Your task to perform on an android device: check out phone information Image 0: 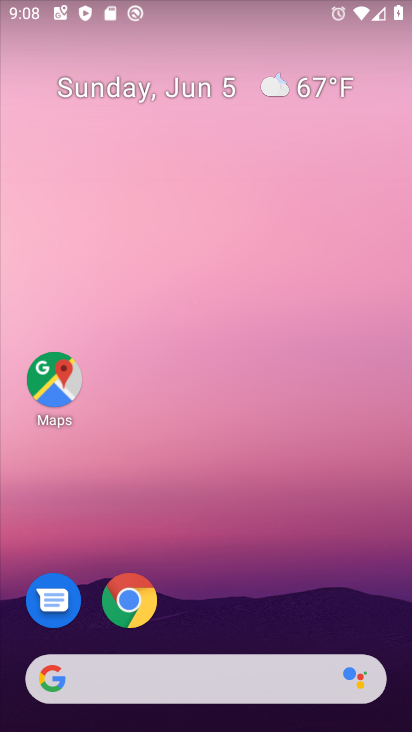
Step 0: drag from (377, 438) to (277, 25)
Your task to perform on an android device: check out phone information Image 1: 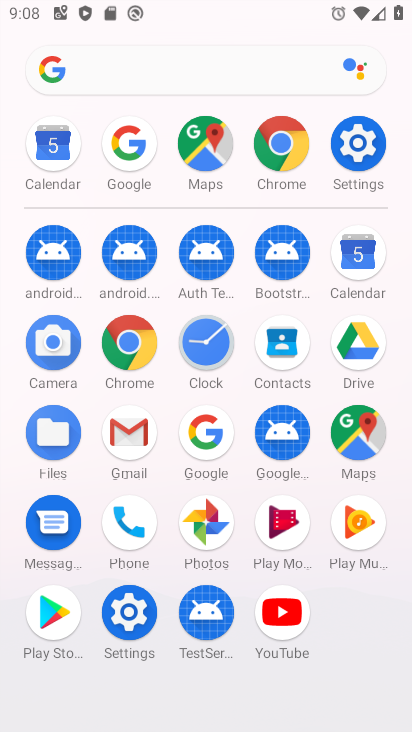
Step 1: click (365, 148)
Your task to perform on an android device: check out phone information Image 2: 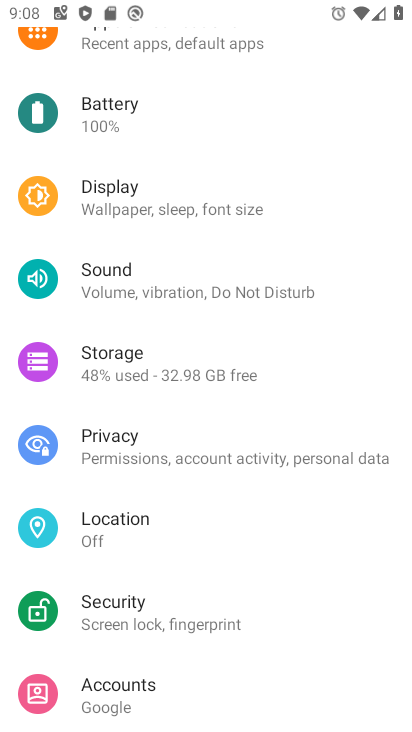
Step 2: task complete